Your task to perform on an android device: Open privacy settings Image 0: 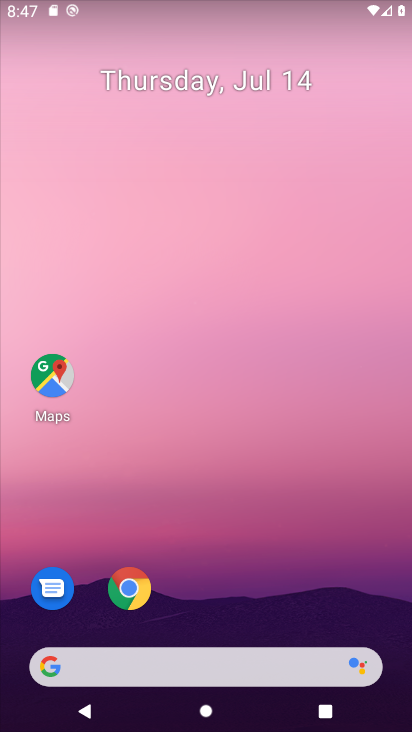
Step 0: drag from (340, 545) to (377, 61)
Your task to perform on an android device: Open privacy settings Image 1: 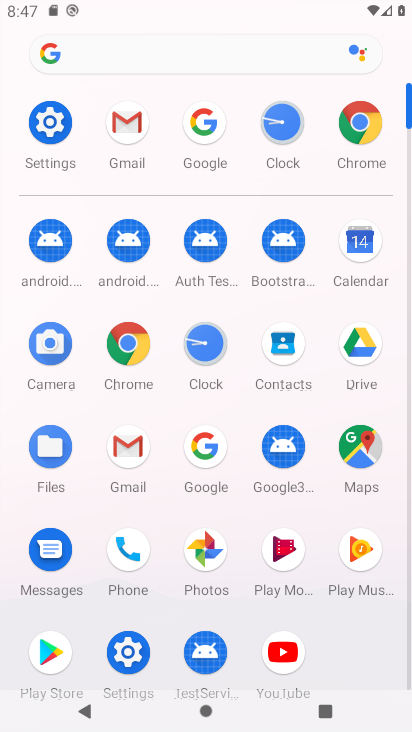
Step 1: click (51, 129)
Your task to perform on an android device: Open privacy settings Image 2: 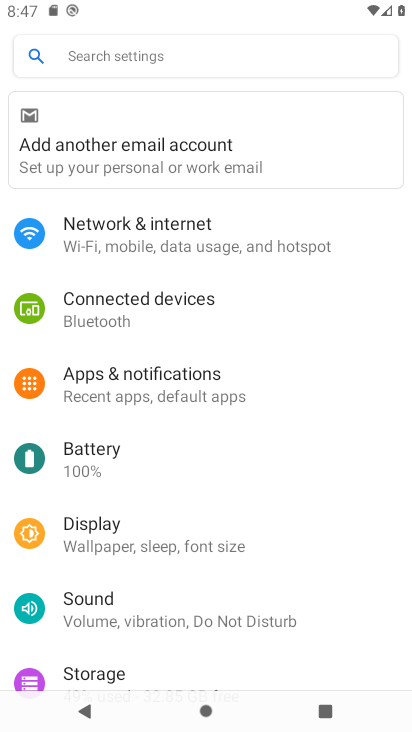
Step 2: drag from (343, 416) to (354, 344)
Your task to perform on an android device: Open privacy settings Image 3: 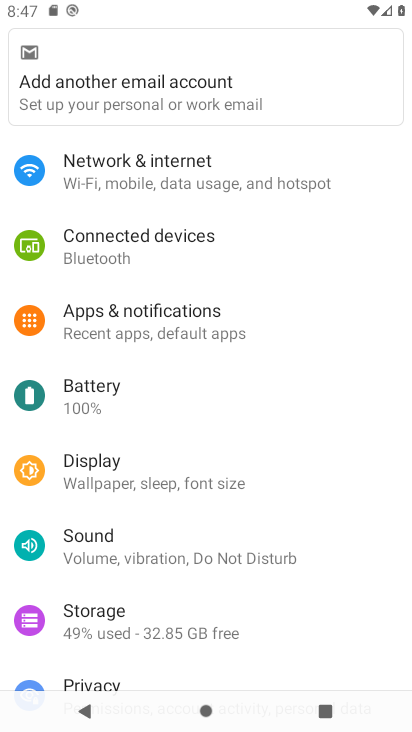
Step 3: drag from (356, 415) to (357, 312)
Your task to perform on an android device: Open privacy settings Image 4: 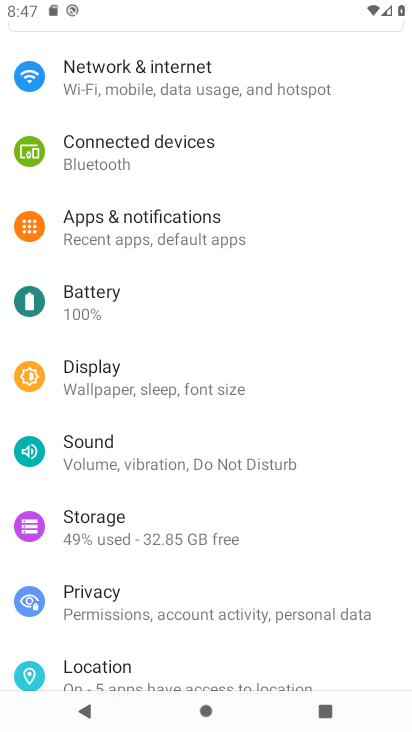
Step 4: drag from (346, 422) to (360, 320)
Your task to perform on an android device: Open privacy settings Image 5: 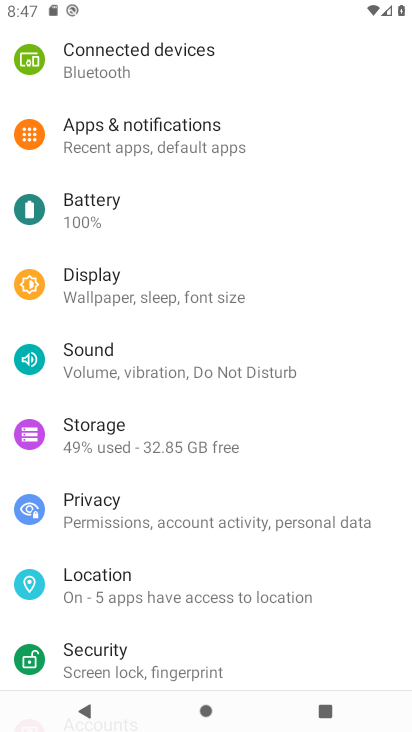
Step 5: drag from (358, 410) to (362, 323)
Your task to perform on an android device: Open privacy settings Image 6: 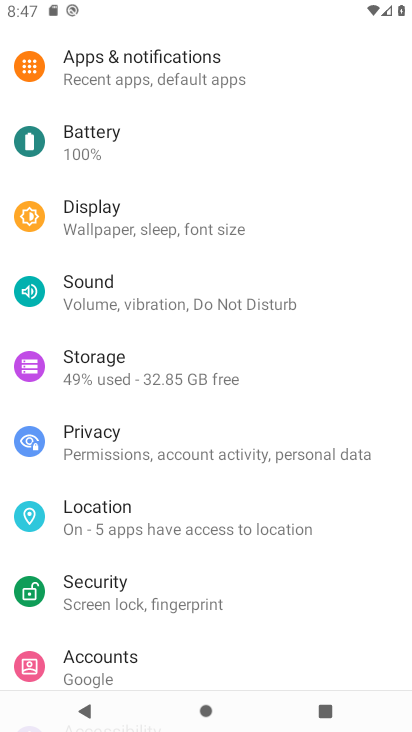
Step 6: drag from (367, 478) to (373, 380)
Your task to perform on an android device: Open privacy settings Image 7: 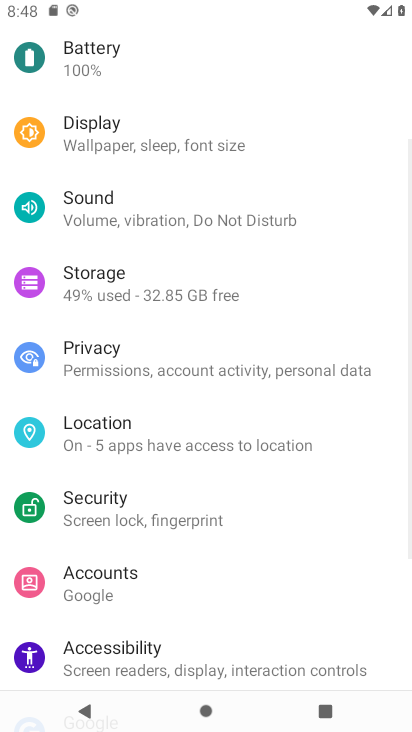
Step 7: drag from (364, 469) to (367, 365)
Your task to perform on an android device: Open privacy settings Image 8: 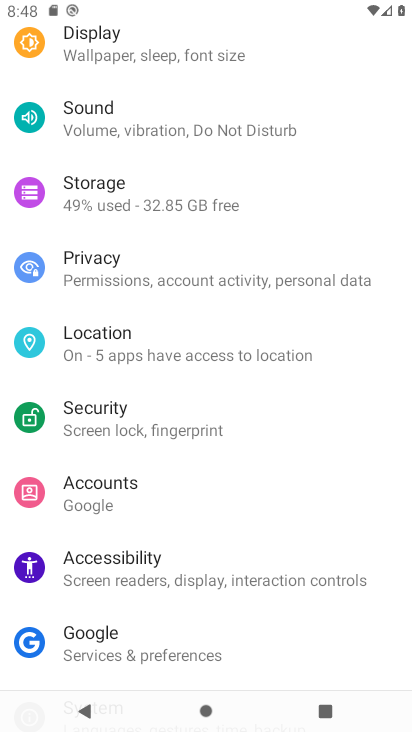
Step 8: drag from (345, 474) to (353, 373)
Your task to perform on an android device: Open privacy settings Image 9: 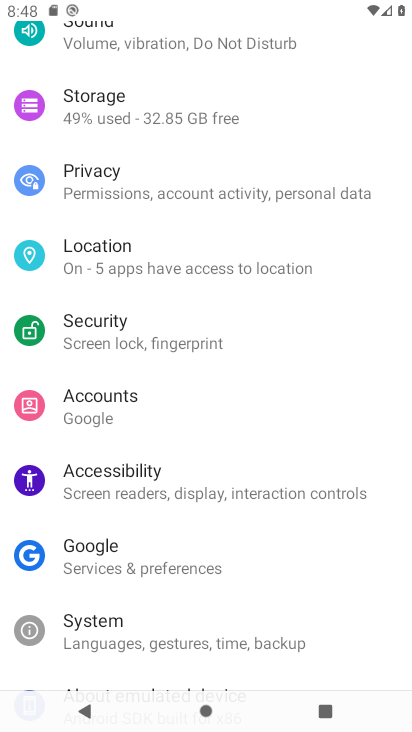
Step 9: drag from (362, 537) to (373, 439)
Your task to perform on an android device: Open privacy settings Image 10: 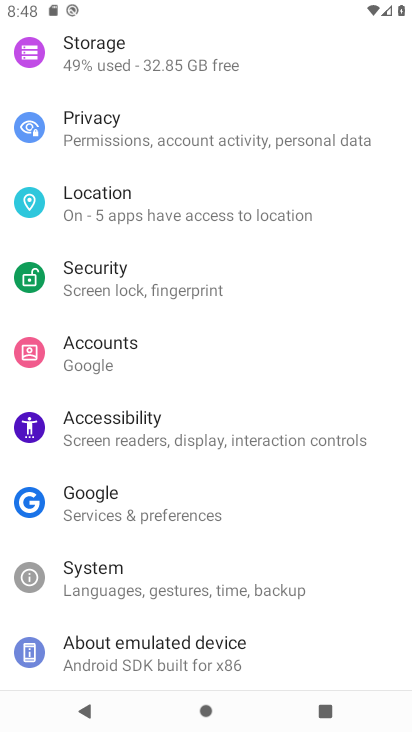
Step 10: drag from (361, 528) to (355, 389)
Your task to perform on an android device: Open privacy settings Image 11: 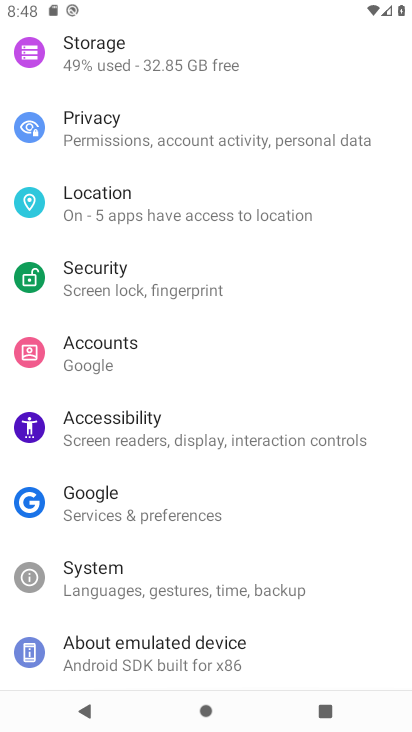
Step 11: drag from (338, 274) to (336, 340)
Your task to perform on an android device: Open privacy settings Image 12: 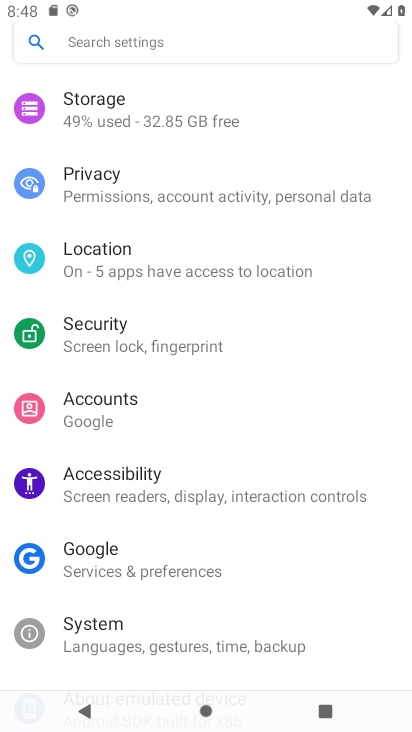
Step 12: drag from (335, 242) to (338, 359)
Your task to perform on an android device: Open privacy settings Image 13: 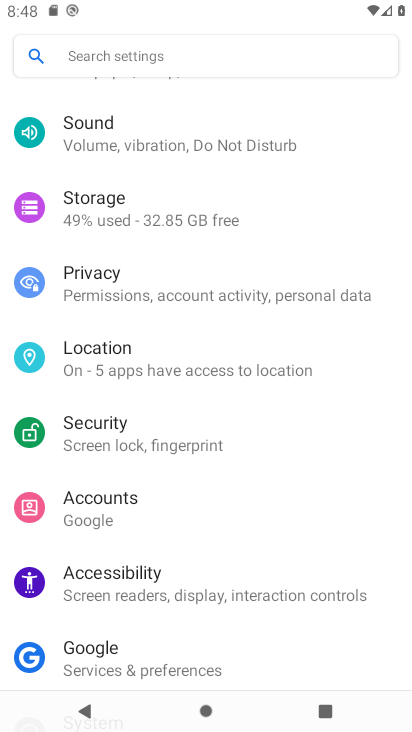
Step 13: drag from (364, 185) to (359, 328)
Your task to perform on an android device: Open privacy settings Image 14: 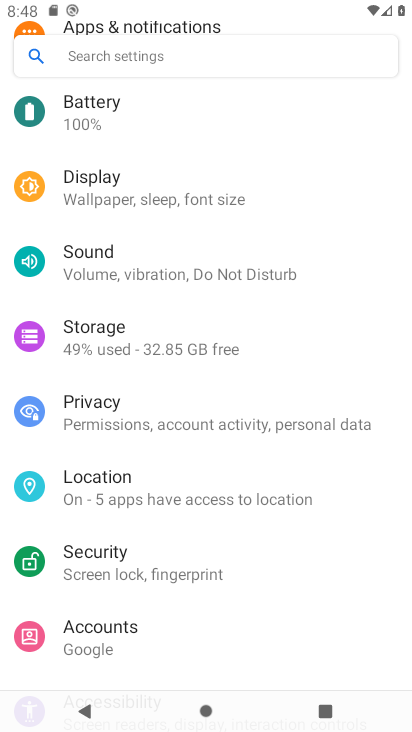
Step 14: click (337, 426)
Your task to perform on an android device: Open privacy settings Image 15: 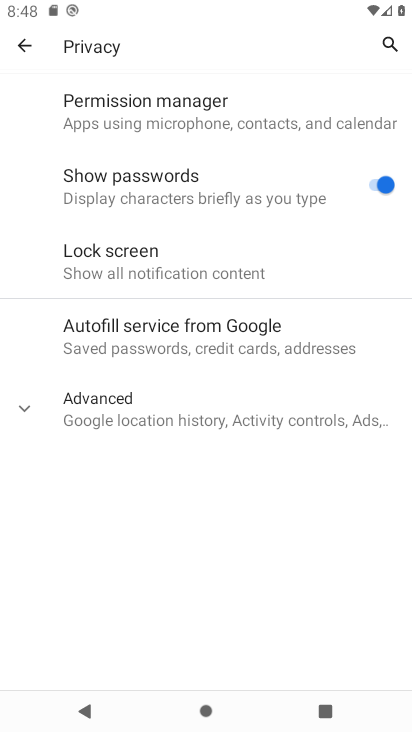
Step 15: click (288, 411)
Your task to perform on an android device: Open privacy settings Image 16: 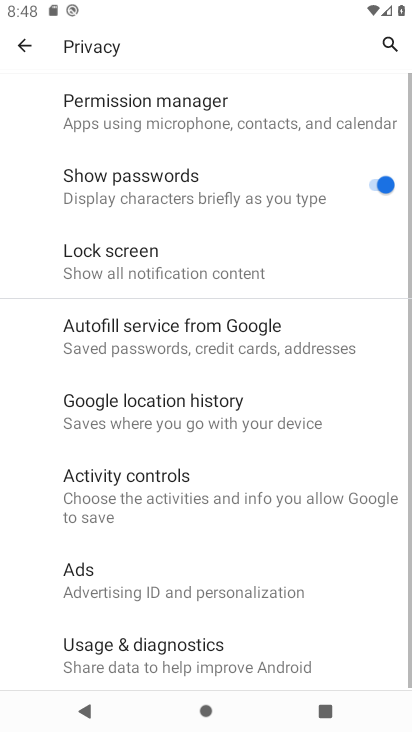
Step 16: task complete